Your task to perform on an android device: What is the recent news? Image 0: 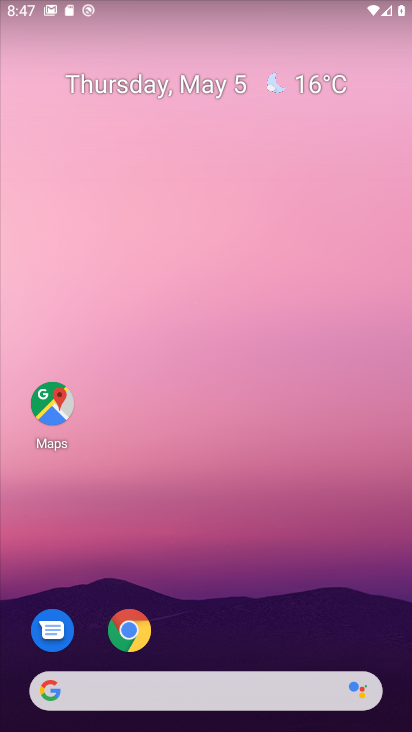
Step 0: drag from (300, 628) to (326, 14)
Your task to perform on an android device: What is the recent news? Image 1: 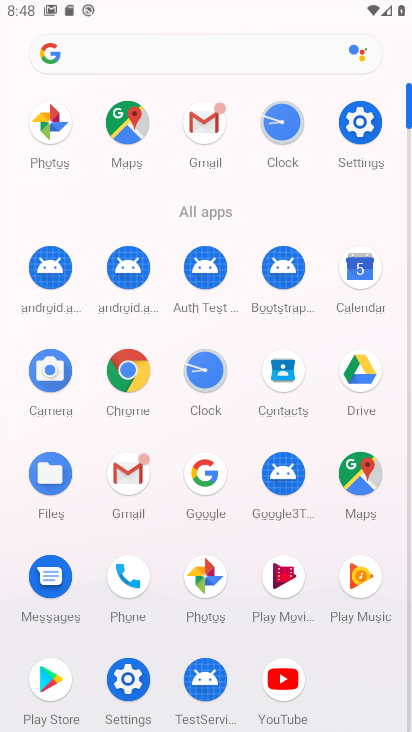
Step 1: click (126, 368)
Your task to perform on an android device: What is the recent news? Image 2: 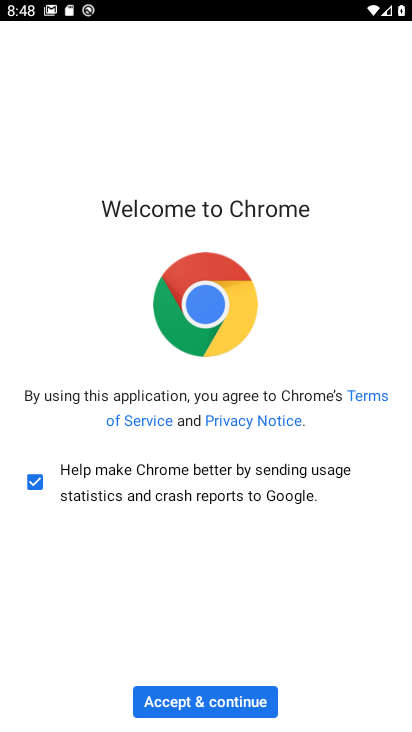
Step 2: click (200, 705)
Your task to perform on an android device: What is the recent news? Image 3: 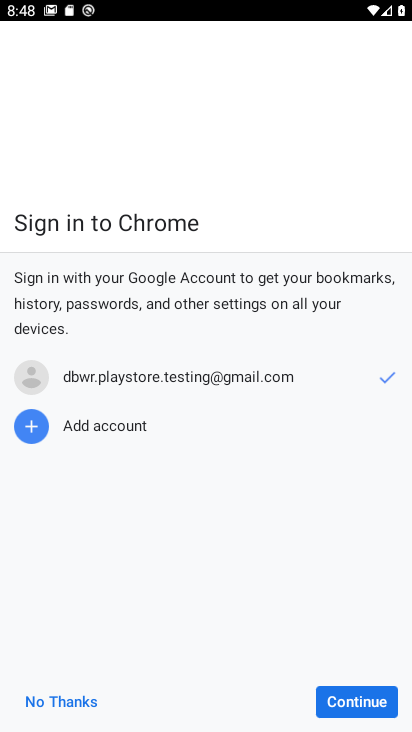
Step 3: click (353, 706)
Your task to perform on an android device: What is the recent news? Image 4: 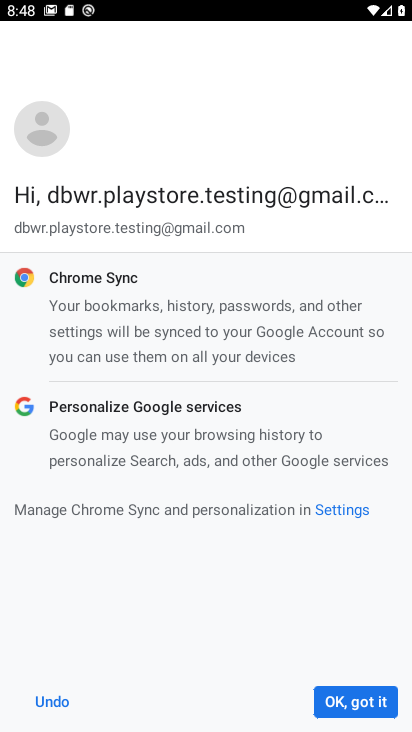
Step 4: click (353, 706)
Your task to perform on an android device: What is the recent news? Image 5: 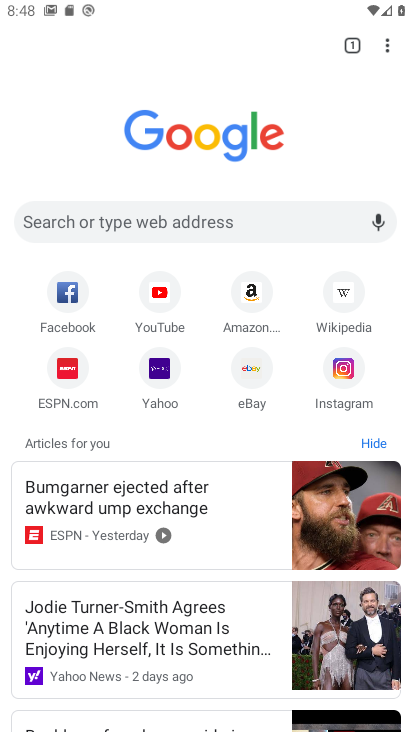
Step 5: drag from (161, 627) to (237, 174)
Your task to perform on an android device: What is the recent news? Image 6: 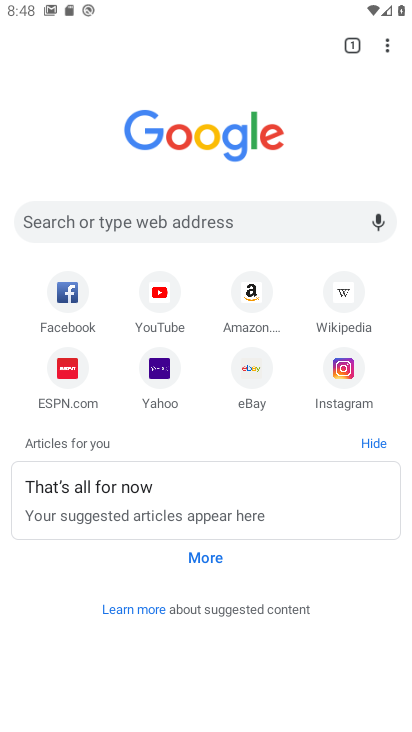
Step 6: drag from (286, 645) to (301, 138)
Your task to perform on an android device: What is the recent news? Image 7: 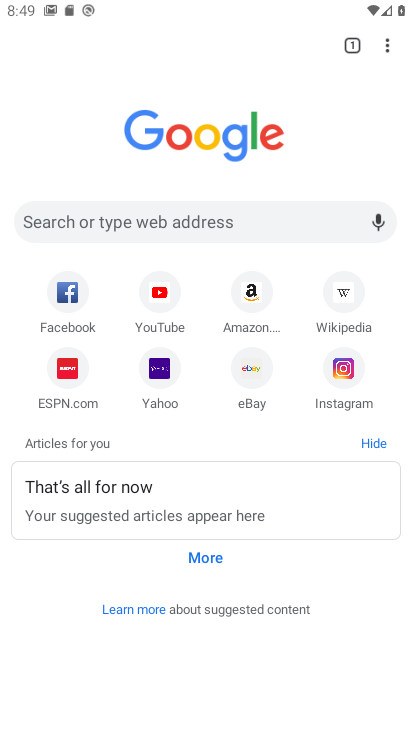
Step 7: click (201, 555)
Your task to perform on an android device: What is the recent news? Image 8: 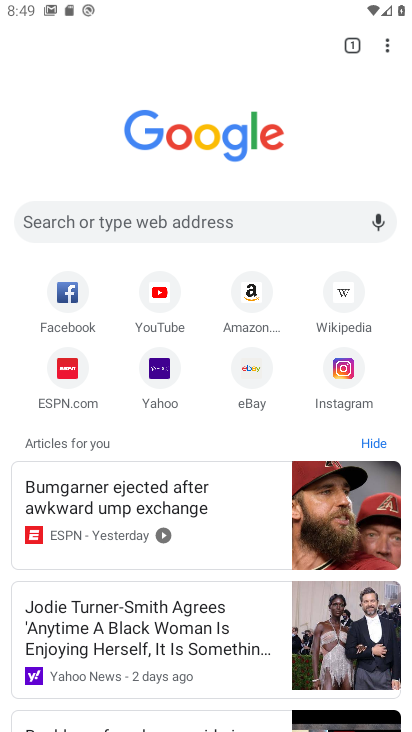
Step 8: task complete